Your task to perform on an android device: turn notification dots on Image 0: 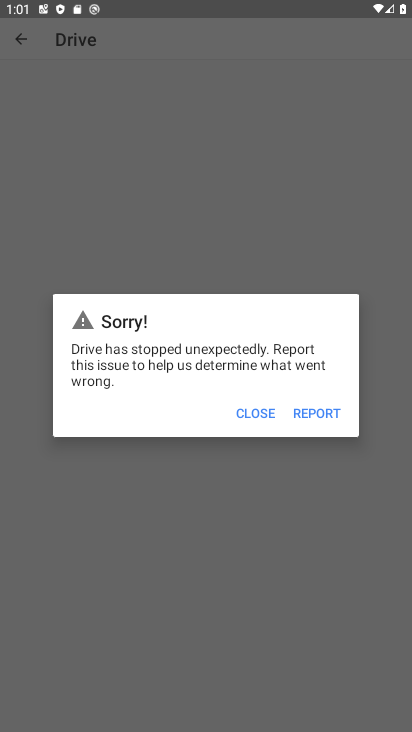
Step 0: press home button
Your task to perform on an android device: turn notification dots on Image 1: 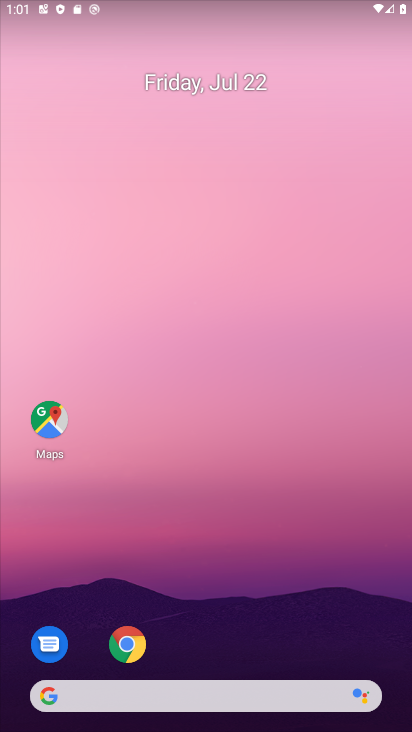
Step 1: drag from (210, 646) to (199, 144)
Your task to perform on an android device: turn notification dots on Image 2: 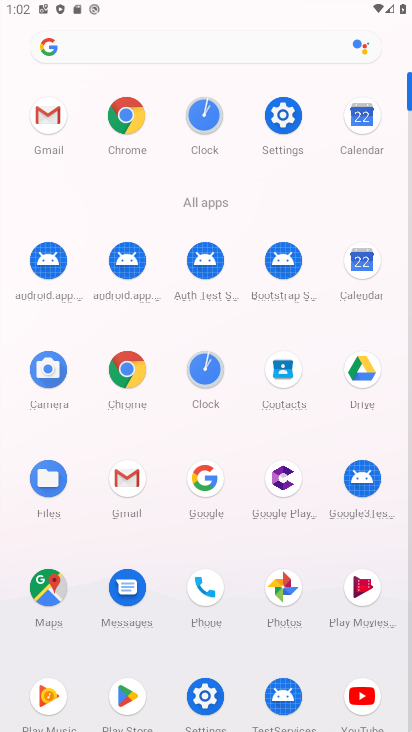
Step 2: click (270, 115)
Your task to perform on an android device: turn notification dots on Image 3: 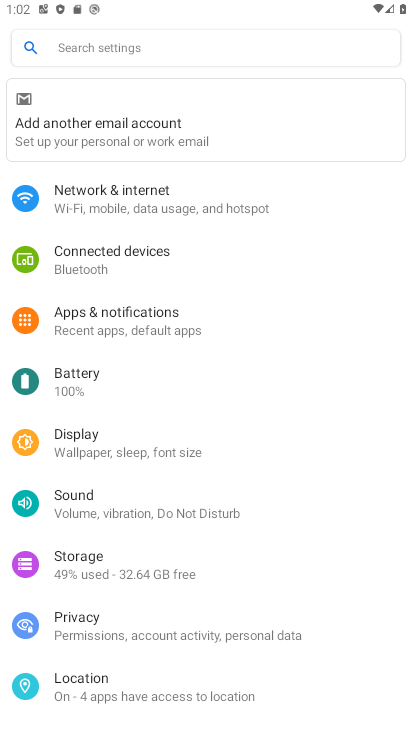
Step 3: click (101, 325)
Your task to perform on an android device: turn notification dots on Image 4: 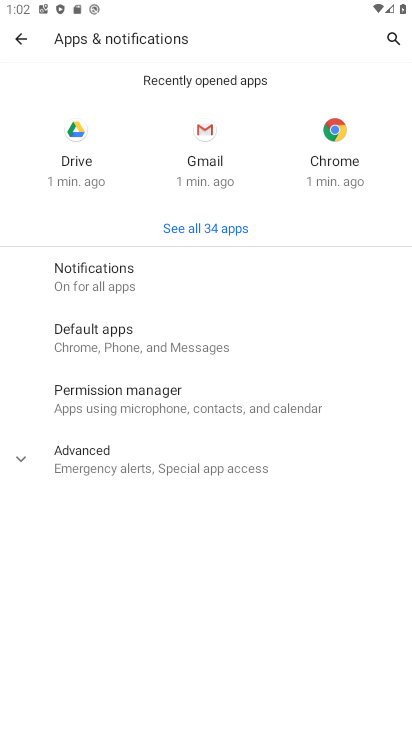
Step 4: click (151, 270)
Your task to perform on an android device: turn notification dots on Image 5: 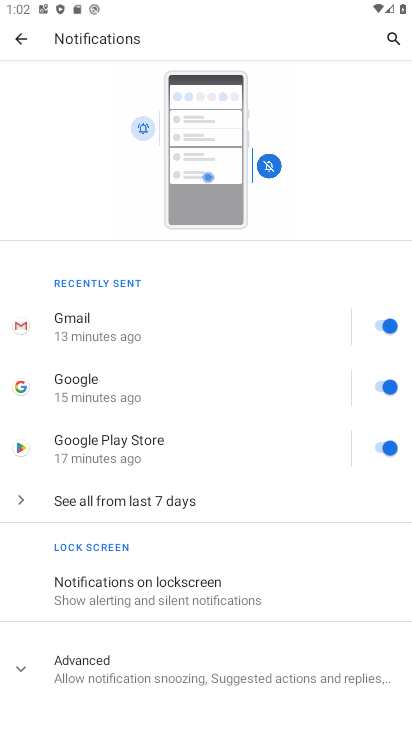
Step 5: click (98, 658)
Your task to perform on an android device: turn notification dots on Image 6: 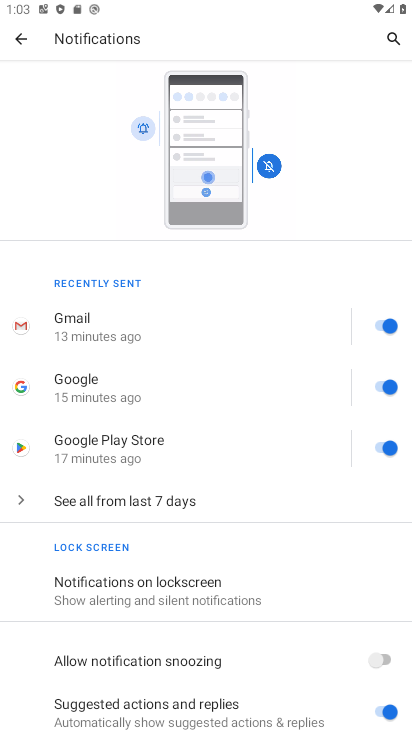
Step 6: drag from (245, 669) to (288, 167)
Your task to perform on an android device: turn notification dots on Image 7: 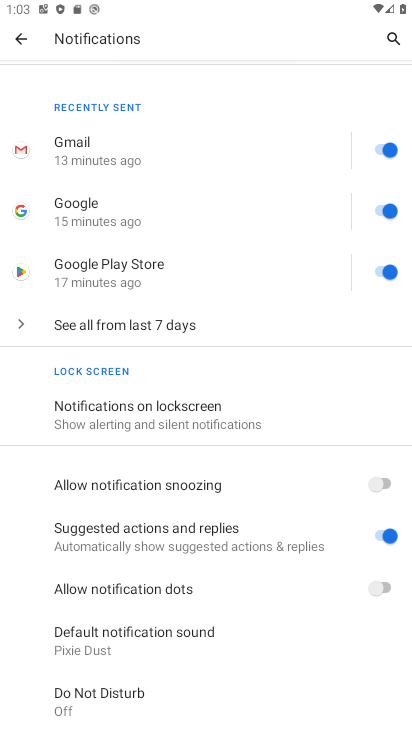
Step 7: click (383, 585)
Your task to perform on an android device: turn notification dots on Image 8: 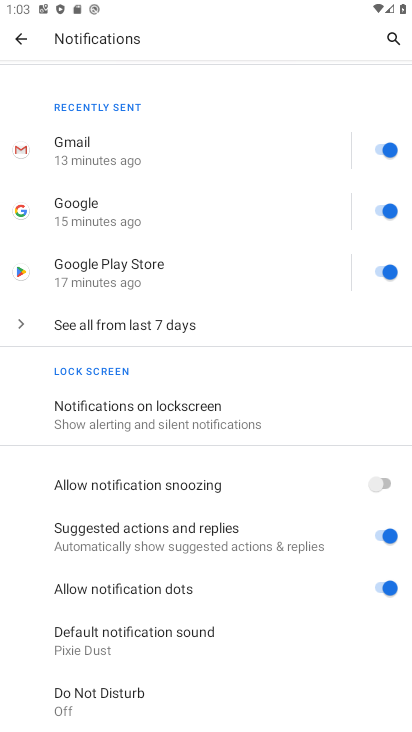
Step 8: task complete